Your task to perform on an android device: Open internet settings Image 0: 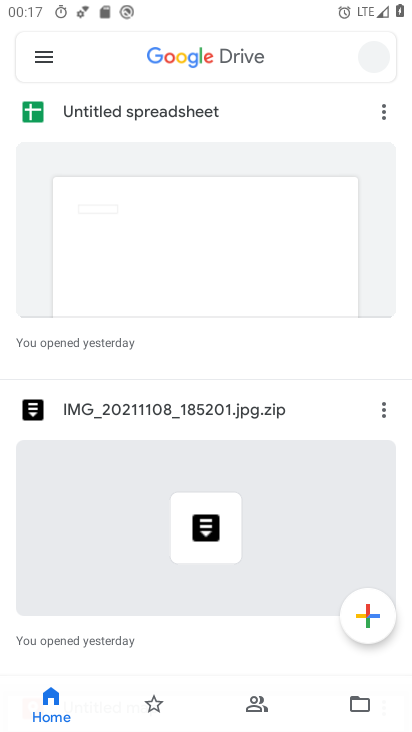
Step 0: click (207, 146)
Your task to perform on an android device: Open internet settings Image 1: 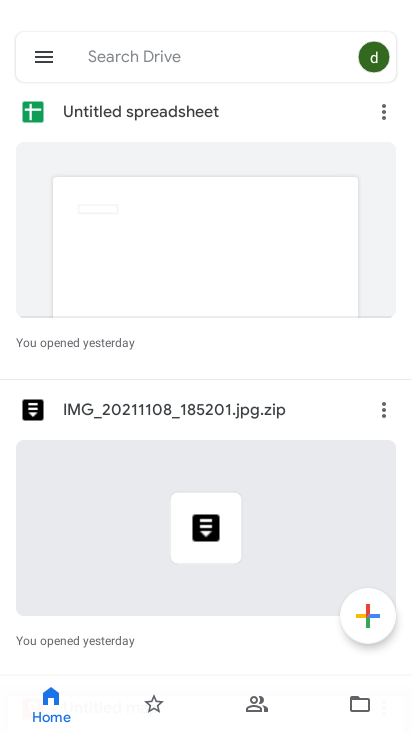
Step 1: press back button
Your task to perform on an android device: Open internet settings Image 2: 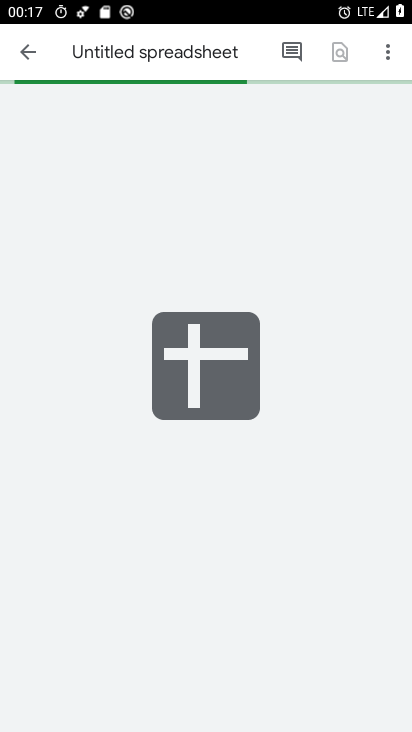
Step 2: press back button
Your task to perform on an android device: Open internet settings Image 3: 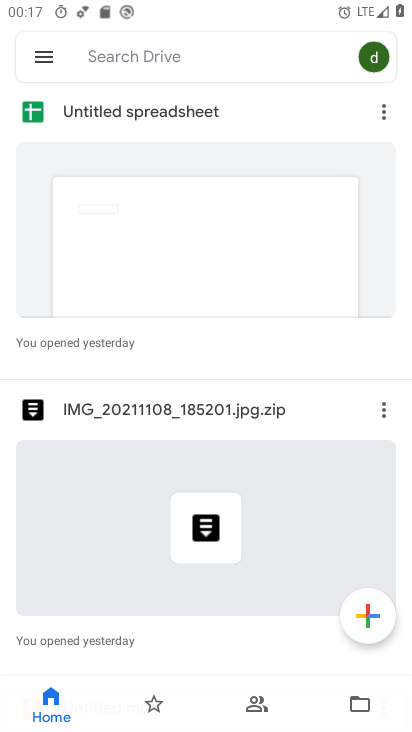
Step 3: press back button
Your task to perform on an android device: Open internet settings Image 4: 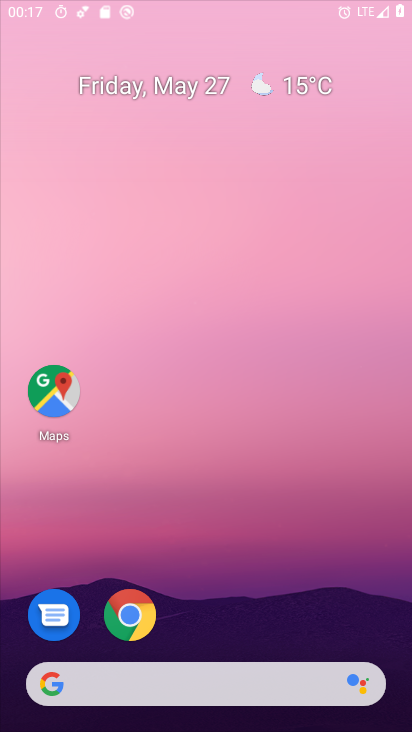
Step 4: press back button
Your task to perform on an android device: Open internet settings Image 5: 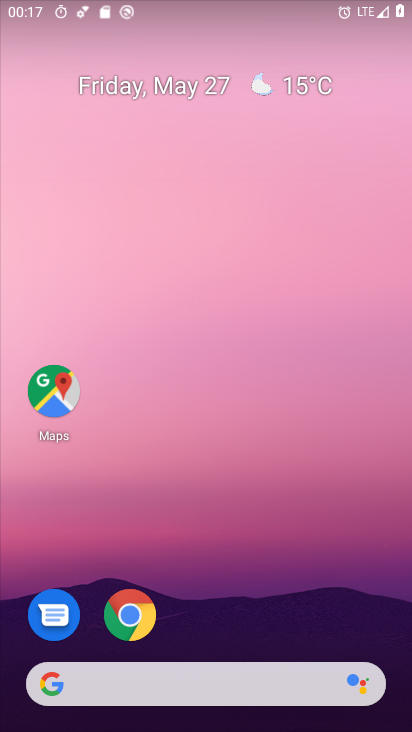
Step 5: drag from (206, 86) to (194, 6)
Your task to perform on an android device: Open internet settings Image 6: 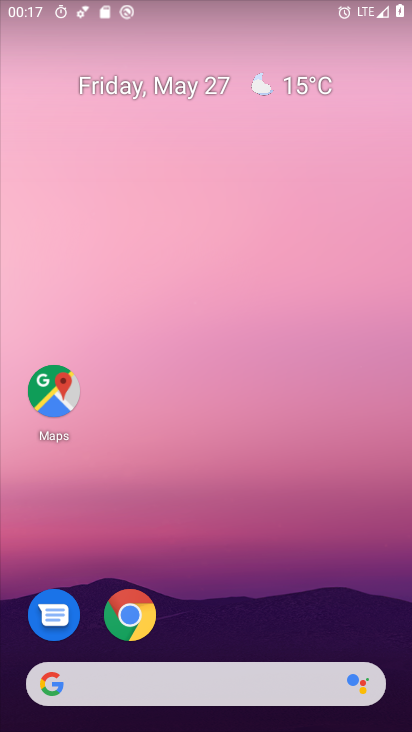
Step 6: drag from (308, 622) to (164, 19)
Your task to perform on an android device: Open internet settings Image 7: 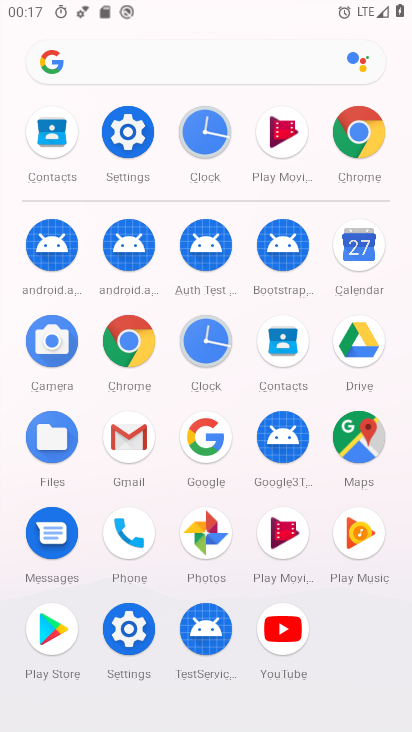
Step 7: click (130, 142)
Your task to perform on an android device: Open internet settings Image 8: 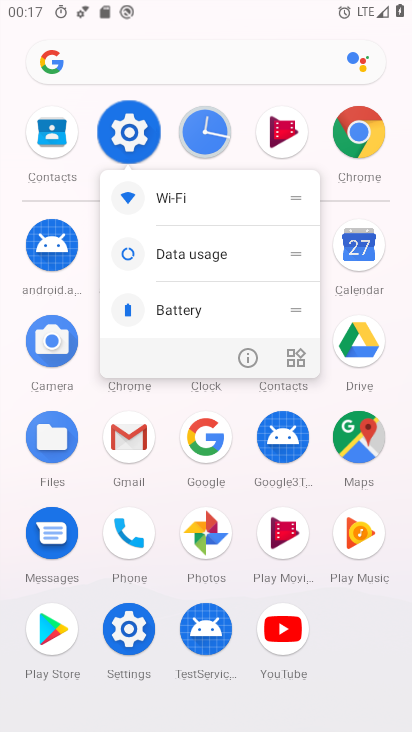
Step 8: click (127, 125)
Your task to perform on an android device: Open internet settings Image 9: 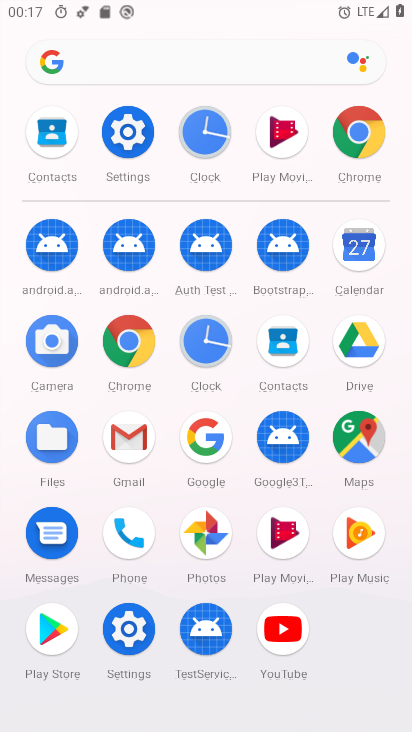
Step 9: click (125, 125)
Your task to perform on an android device: Open internet settings Image 10: 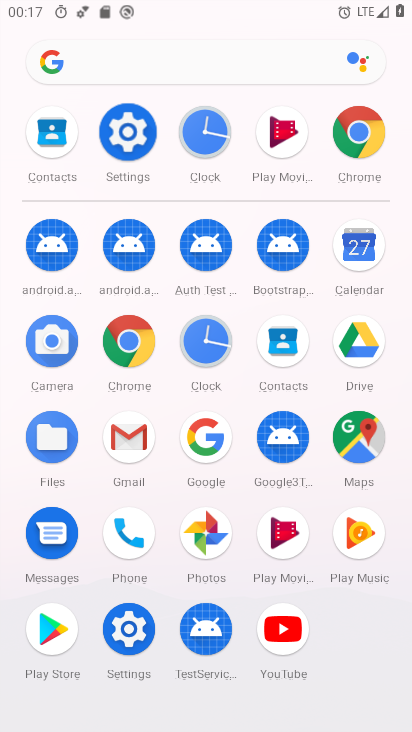
Step 10: click (131, 130)
Your task to perform on an android device: Open internet settings Image 11: 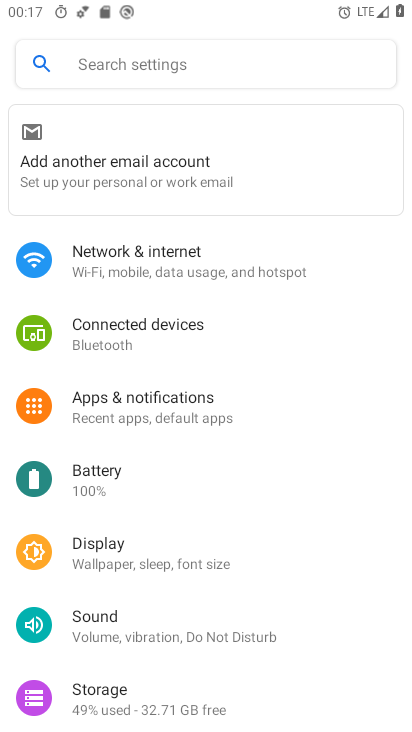
Step 11: click (134, 268)
Your task to perform on an android device: Open internet settings Image 12: 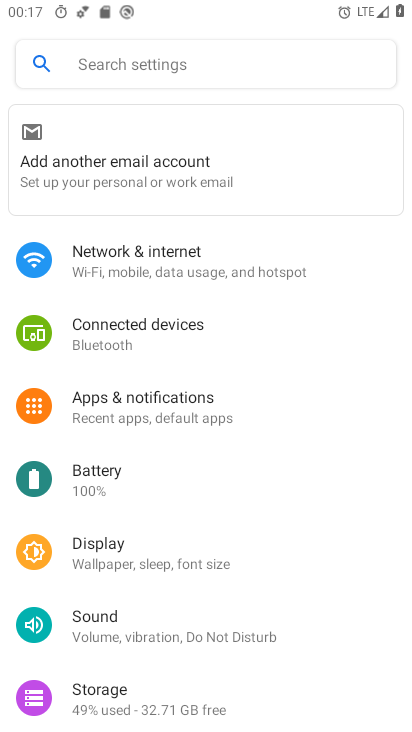
Step 12: click (136, 266)
Your task to perform on an android device: Open internet settings Image 13: 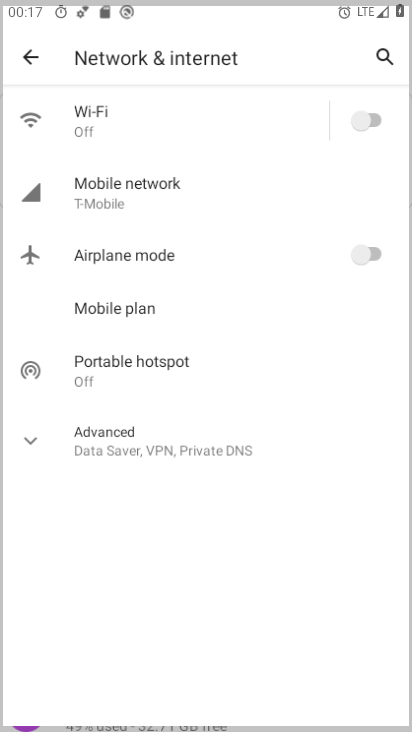
Step 13: click (136, 265)
Your task to perform on an android device: Open internet settings Image 14: 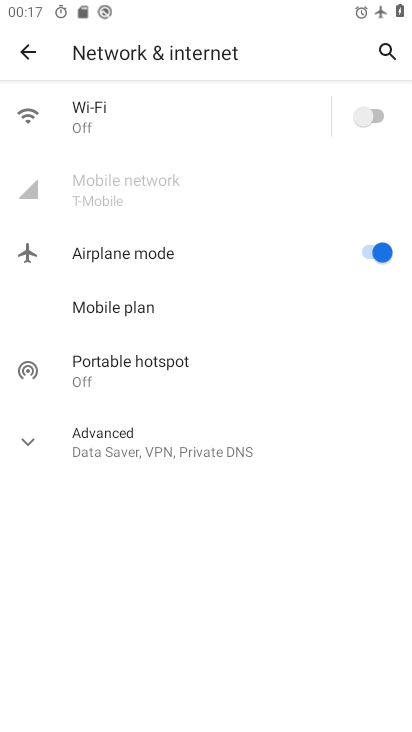
Step 14: task complete